Your task to perform on an android device: Open Reddit.com Image 0: 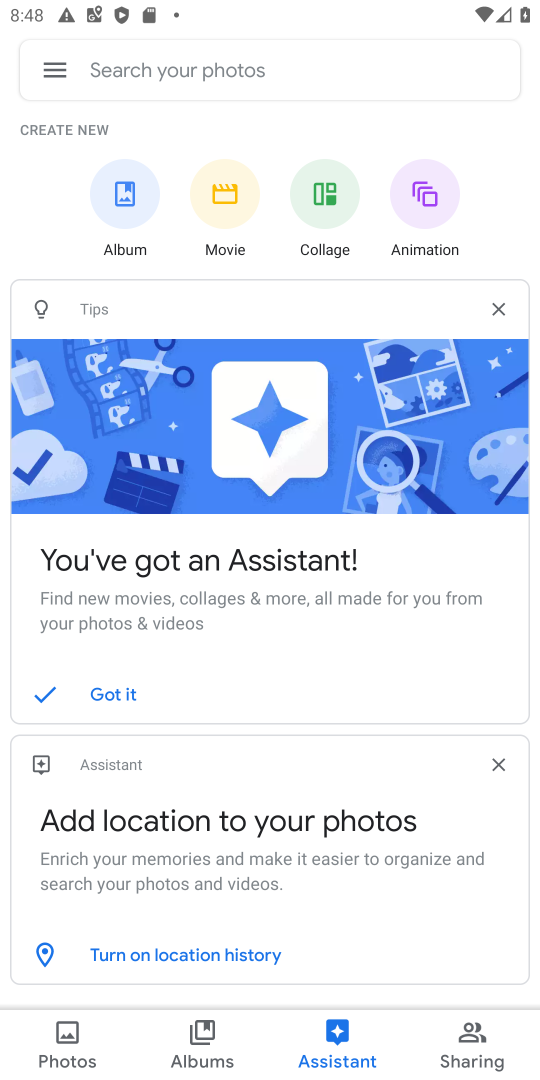
Step 0: press home button
Your task to perform on an android device: Open Reddit.com Image 1: 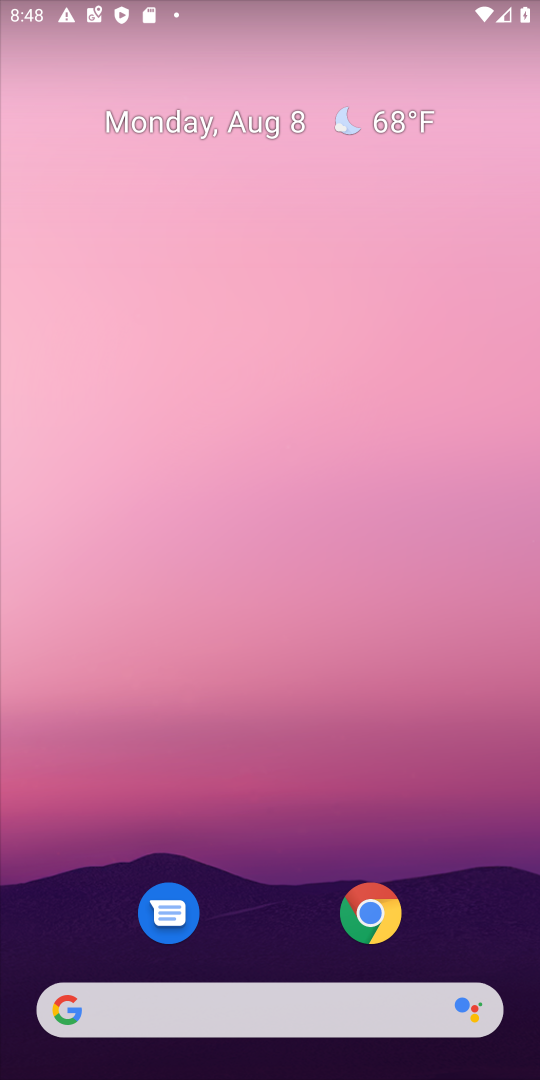
Step 1: click (372, 915)
Your task to perform on an android device: Open Reddit.com Image 2: 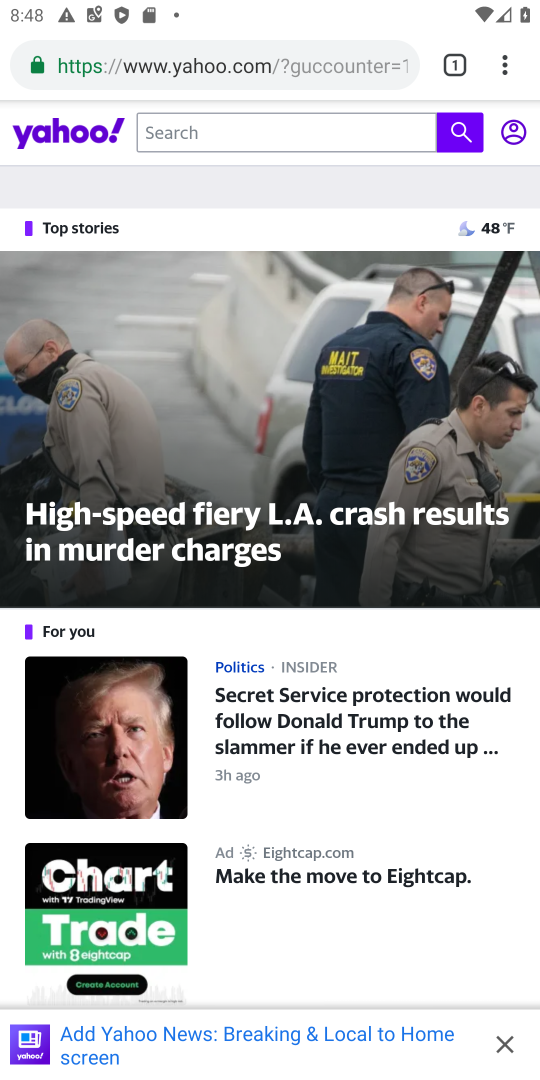
Step 2: click (362, 73)
Your task to perform on an android device: Open Reddit.com Image 3: 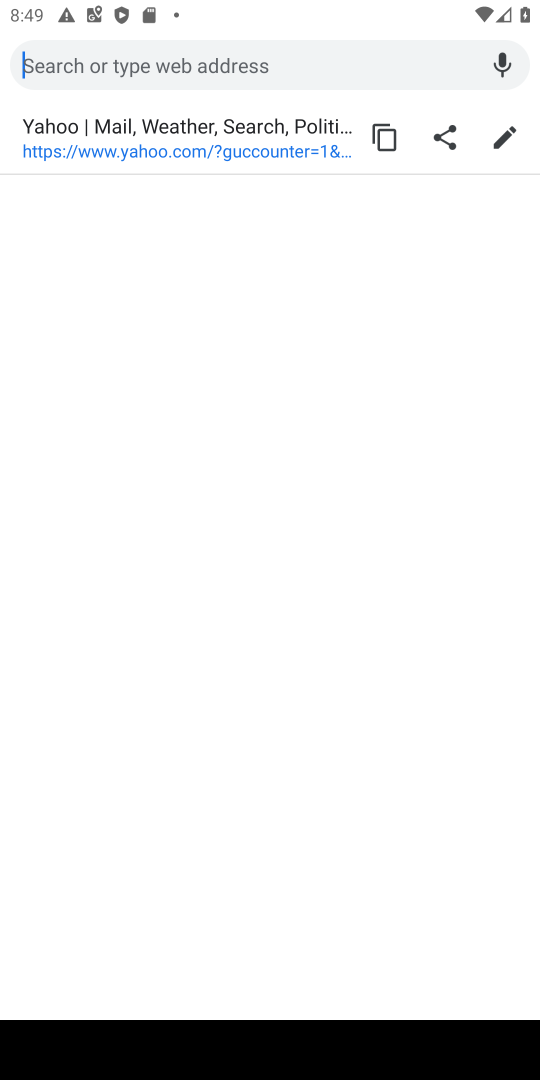
Step 3: type "Reddit.com"
Your task to perform on an android device: Open Reddit.com Image 4: 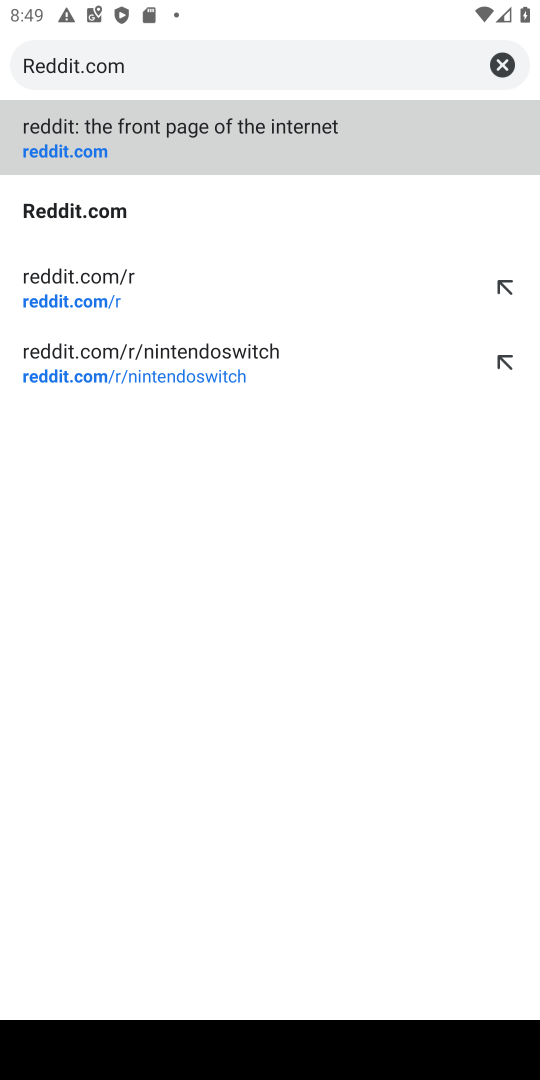
Step 4: click (107, 213)
Your task to perform on an android device: Open Reddit.com Image 5: 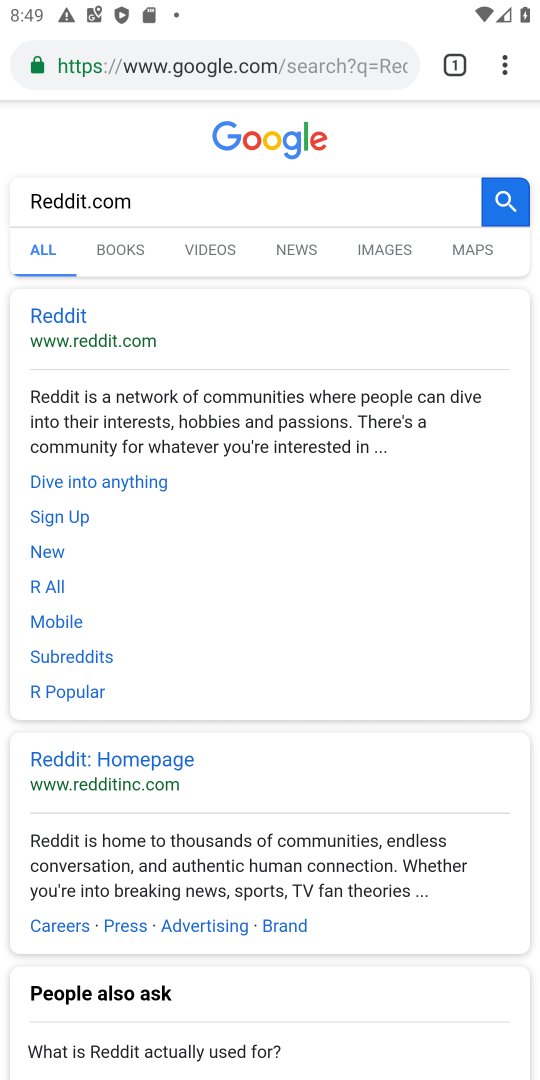
Step 5: click (77, 337)
Your task to perform on an android device: Open Reddit.com Image 6: 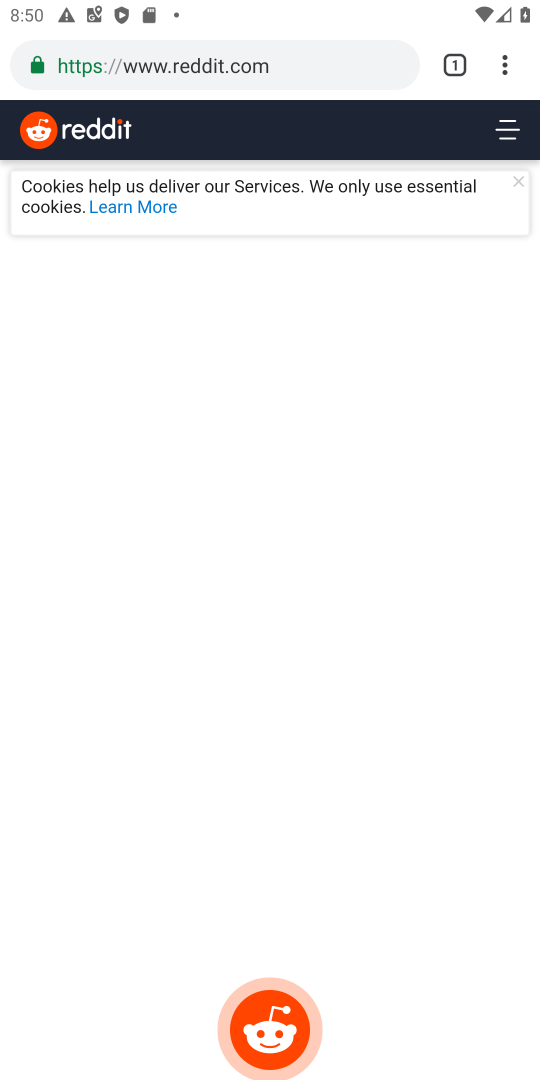
Step 6: task complete